Your task to perform on an android device: What's the weather? Image 0: 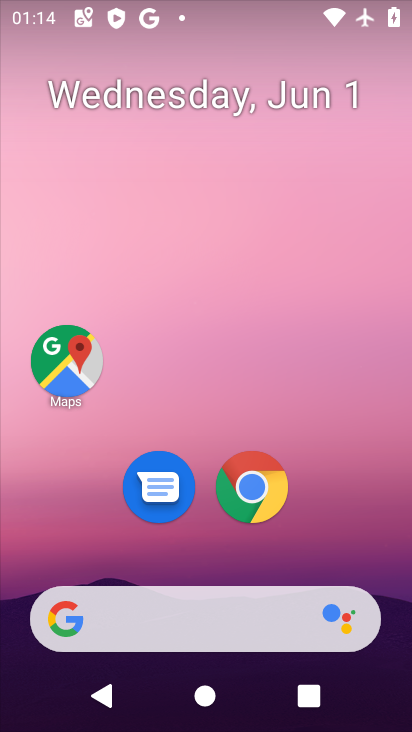
Step 0: drag from (299, 559) to (283, 210)
Your task to perform on an android device: What's the weather? Image 1: 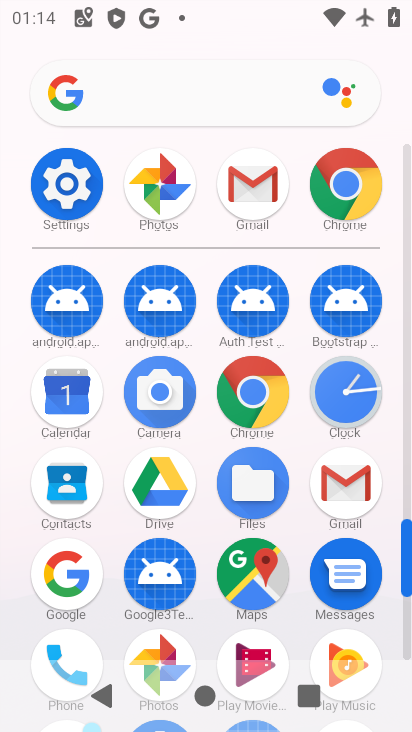
Step 1: click (330, 186)
Your task to perform on an android device: What's the weather? Image 2: 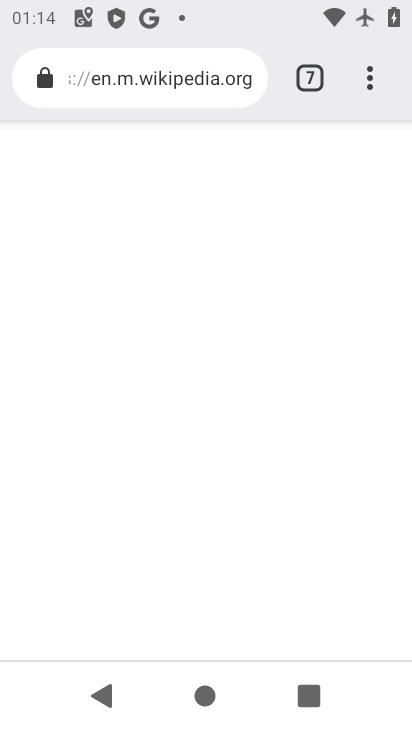
Step 2: click (377, 76)
Your task to perform on an android device: What's the weather? Image 3: 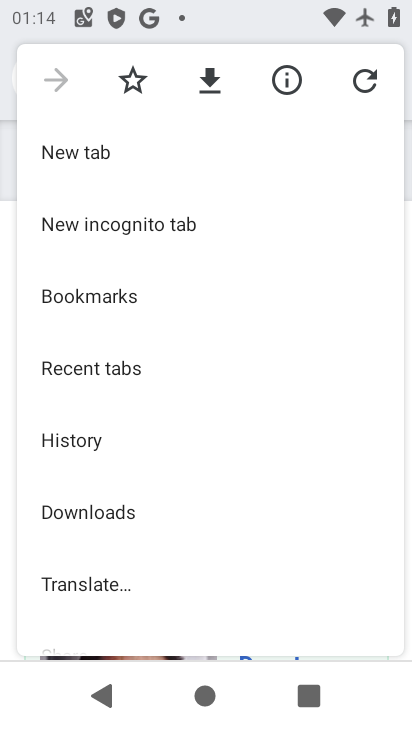
Step 3: click (65, 142)
Your task to perform on an android device: What's the weather? Image 4: 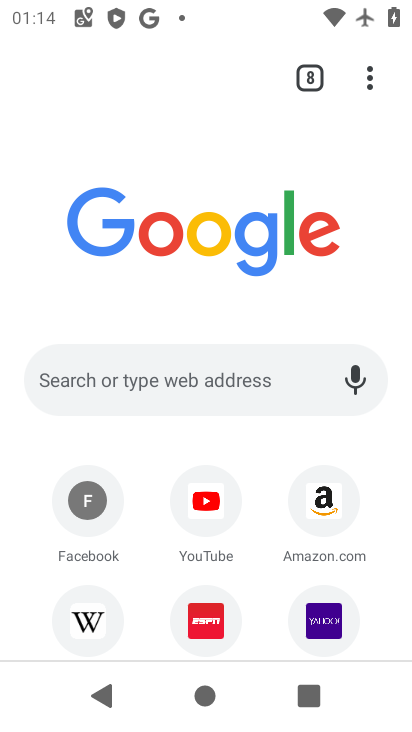
Step 4: type "What's the weather?"
Your task to perform on an android device: What's the weather? Image 5: 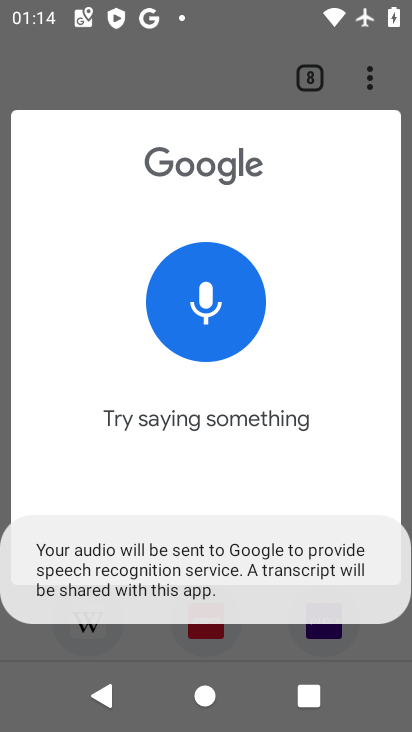
Step 5: click (236, 375)
Your task to perform on an android device: What's the weather? Image 6: 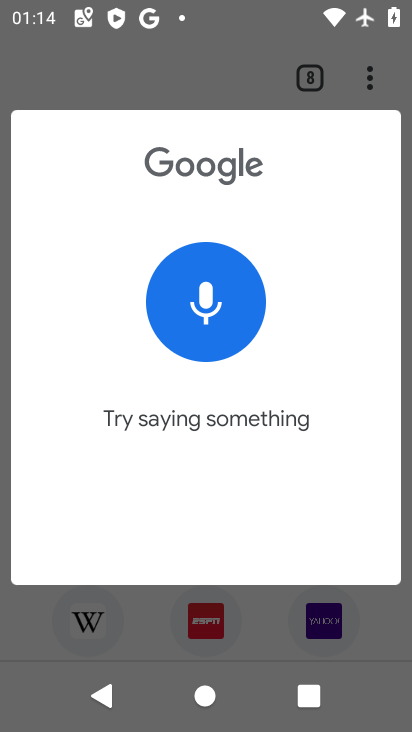
Step 6: click (384, 610)
Your task to perform on an android device: What's the weather? Image 7: 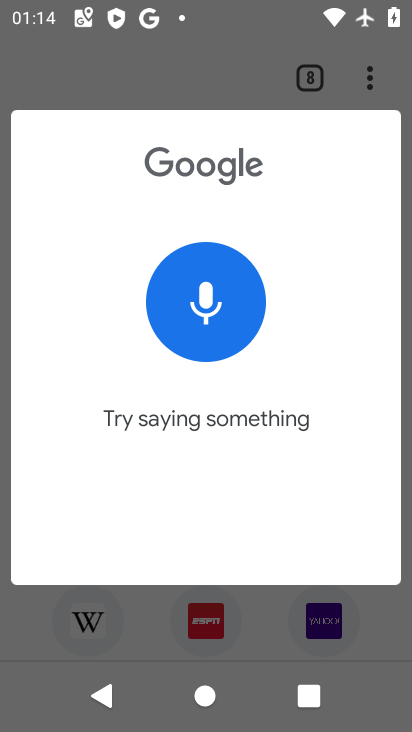
Step 7: click (216, 319)
Your task to perform on an android device: What's the weather? Image 8: 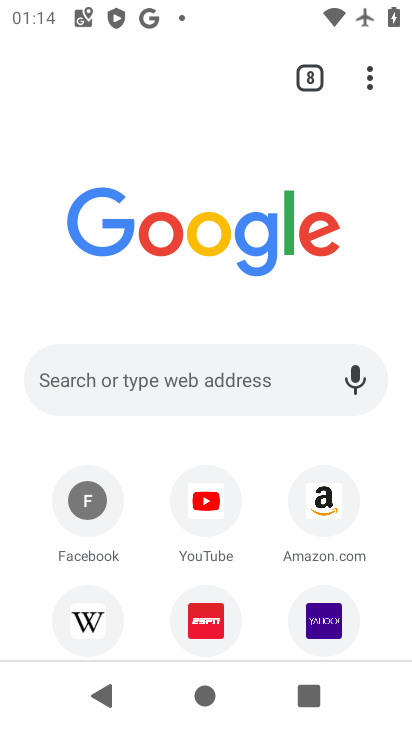
Step 8: click (146, 355)
Your task to perform on an android device: What's the weather? Image 9: 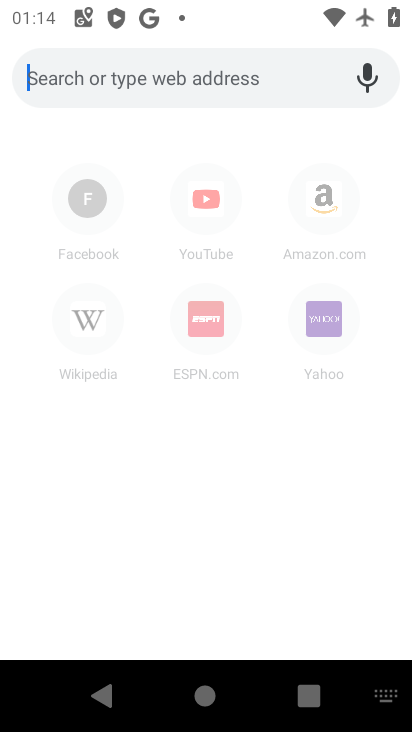
Step 9: type "What's the weather?"
Your task to perform on an android device: What's the weather? Image 10: 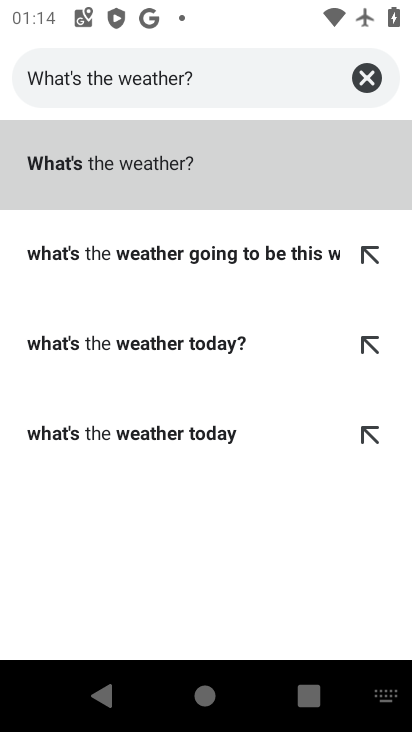
Step 10: click (153, 171)
Your task to perform on an android device: What's the weather? Image 11: 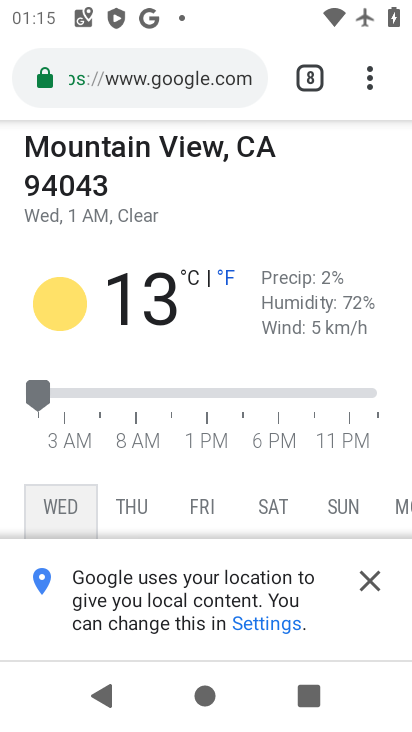
Step 11: task complete